Your task to perform on an android device: Open accessibility settings Image 0: 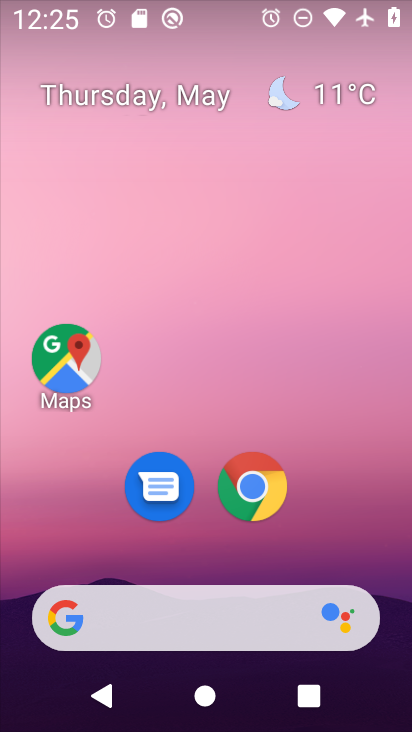
Step 0: drag from (343, 525) to (247, 23)
Your task to perform on an android device: Open accessibility settings Image 1: 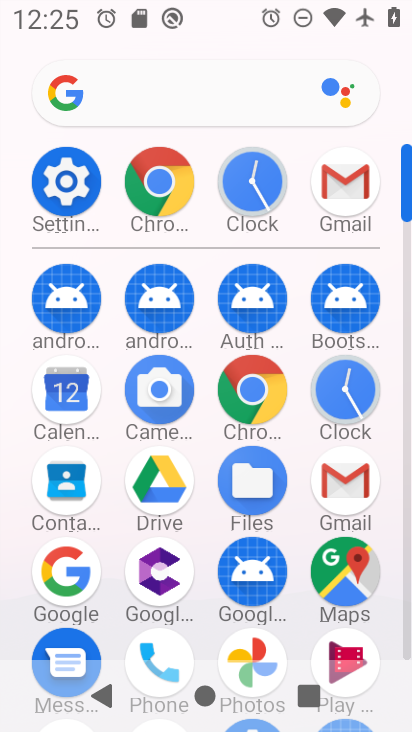
Step 1: click (67, 181)
Your task to perform on an android device: Open accessibility settings Image 2: 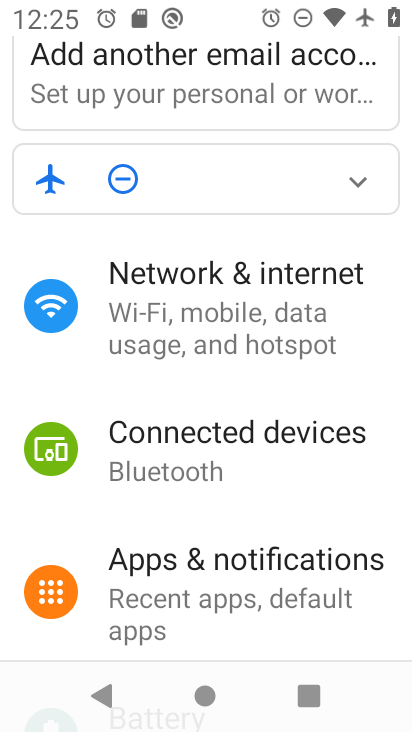
Step 2: drag from (274, 587) to (304, 133)
Your task to perform on an android device: Open accessibility settings Image 3: 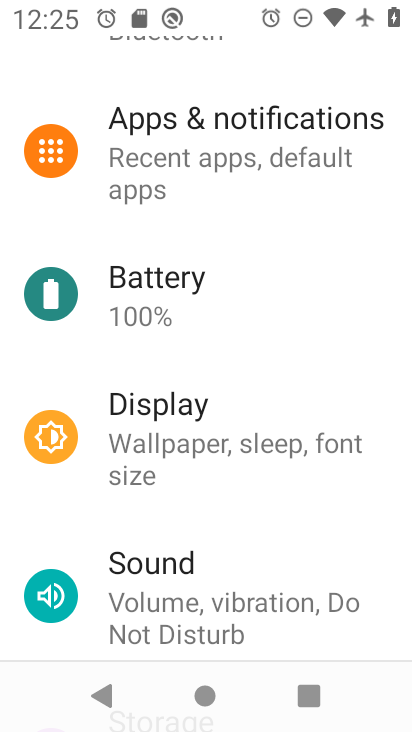
Step 3: drag from (240, 467) to (263, 159)
Your task to perform on an android device: Open accessibility settings Image 4: 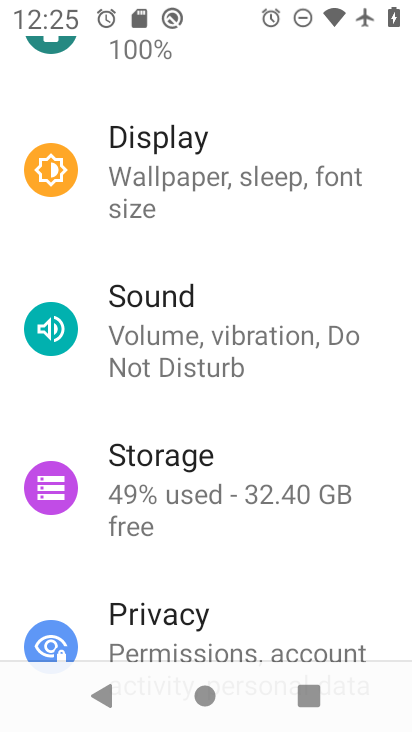
Step 4: drag from (302, 558) to (287, 205)
Your task to perform on an android device: Open accessibility settings Image 5: 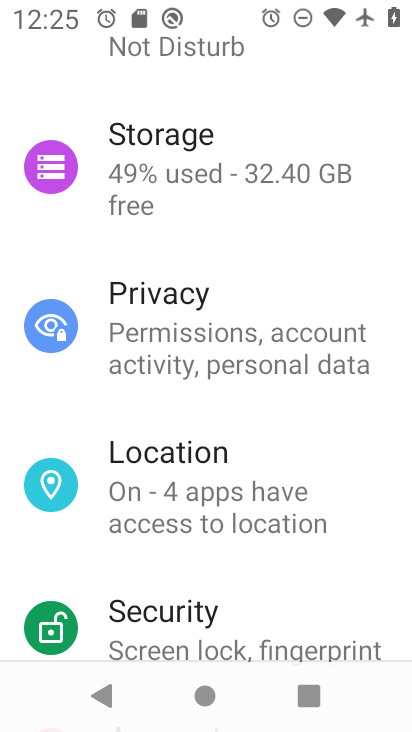
Step 5: drag from (273, 482) to (304, 187)
Your task to perform on an android device: Open accessibility settings Image 6: 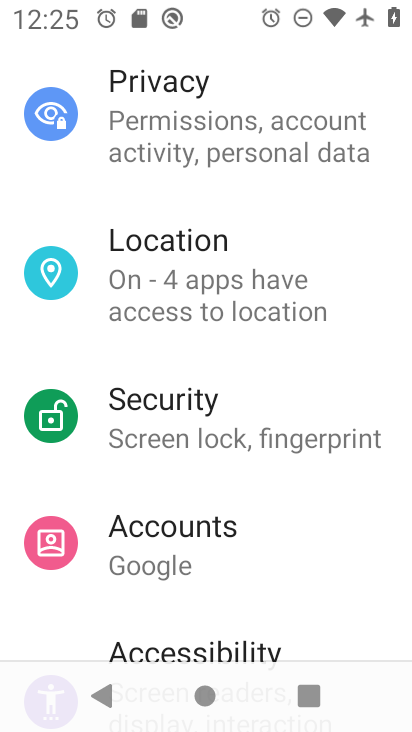
Step 6: drag from (285, 538) to (284, 173)
Your task to perform on an android device: Open accessibility settings Image 7: 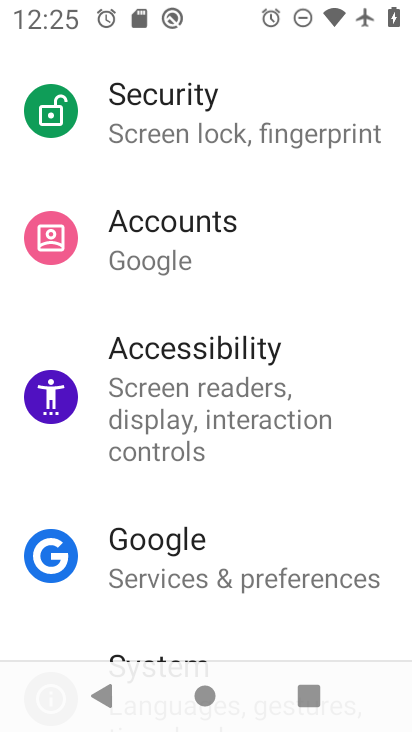
Step 7: drag from (279, 553) to (266, 107)
Your task to perform on an android device: Open accessibility settings Image 8: 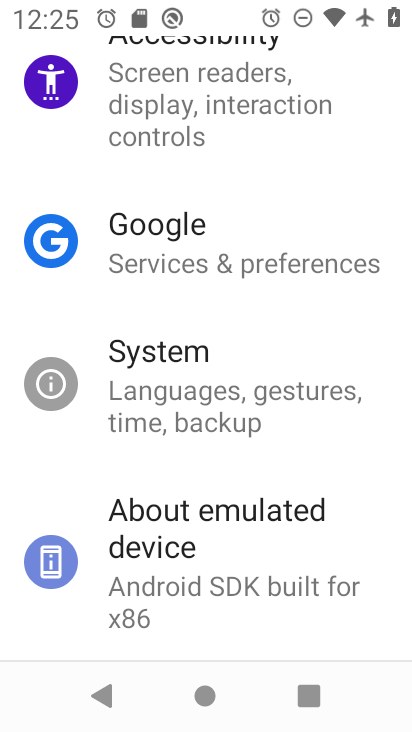
Step 8: drag from (245, 529) to (286, 133)
Your task to perform on an android device: Open accessibility settings Image 9: 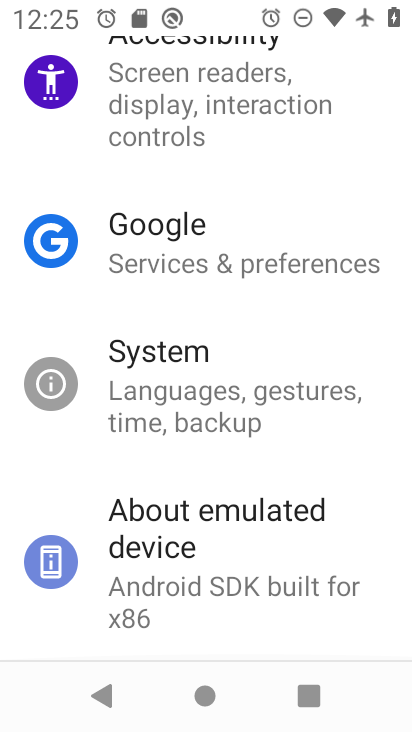
Step 9: drag from (289, 144) to (331, 586)
Your task to perform on an android device: Open accessibility settings Image 10: 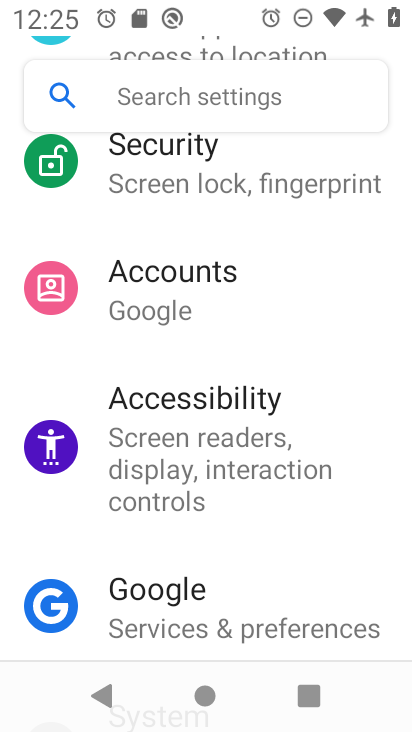
Step 10: click (235, 457)
Your task to perform on an android device: Open accessibility settings Image 11: 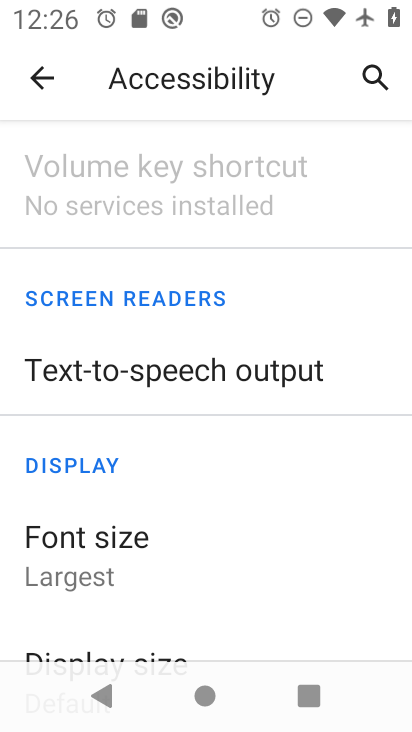
Step 11: task complete